Your task to perform on an android device: Open Youtube and go to the subscriptions tab Image 0: 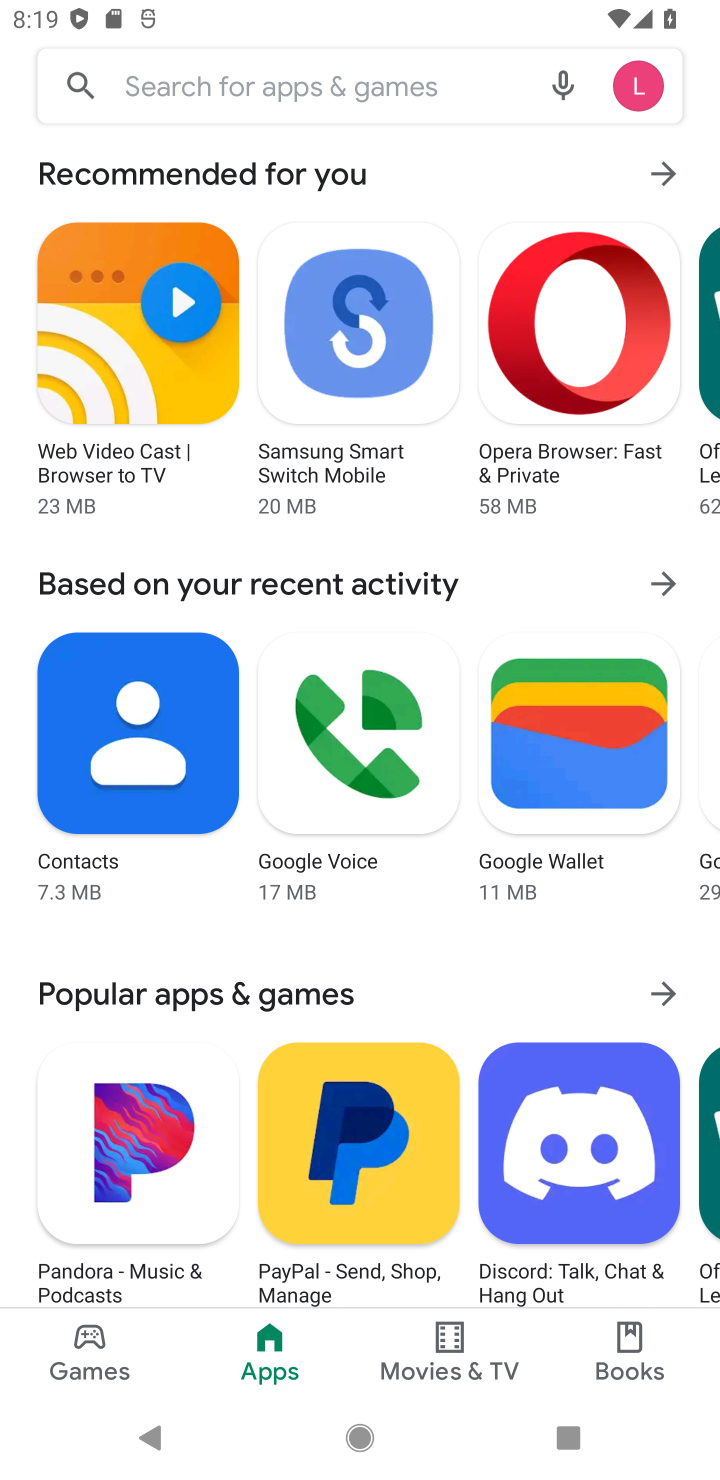
Step 0: task complete